Your task to perform on an android device: toggle javascript in the chrome app Image 0: 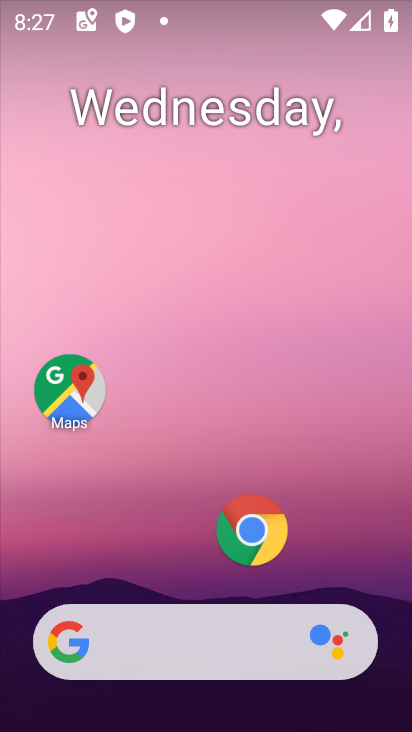
Step 0: click (251, 523)
Your task to perform on an android device: toggle javascript in the chrome app Image 1: 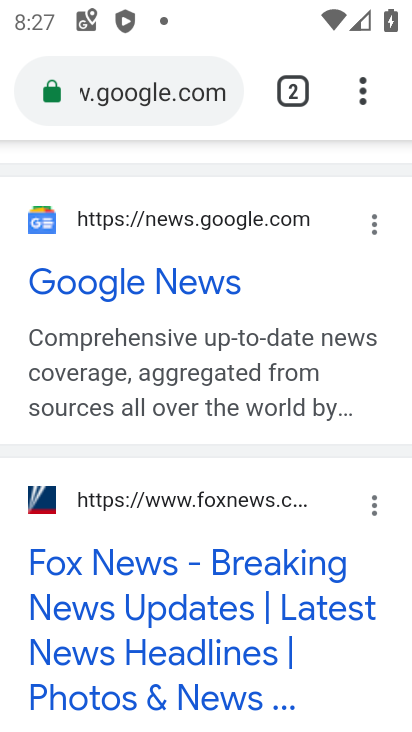
Step 1: drag from (356, 89) to (89, 547)
Your task to perform on an android device: toggle javascript in the chrome app Image 2: 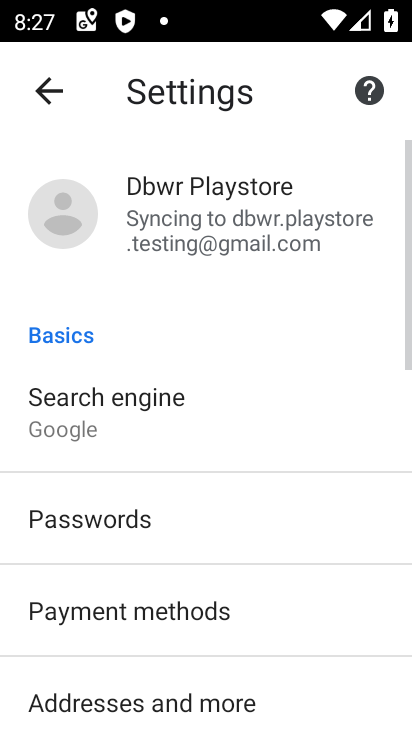
Step 2: drag from (148, 626) to (234, 210)
Your task to perform on an android device: toggle javascript in the chrome app Image 3: 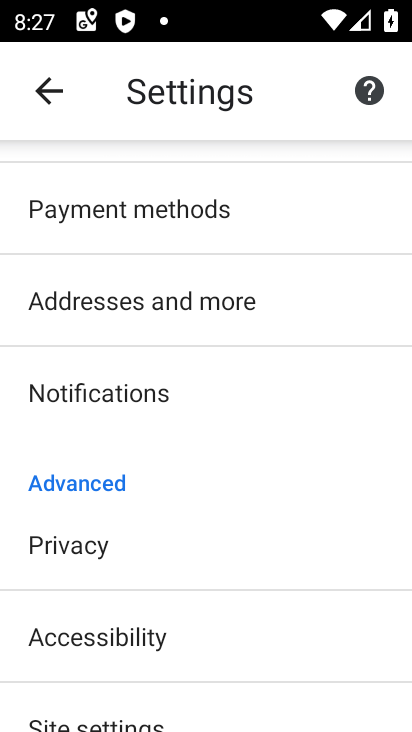
Step 3: drag from (168, 679) to (244, 326)
Your task to perform on an android device: toggle javascript in the chrome app Image 4: 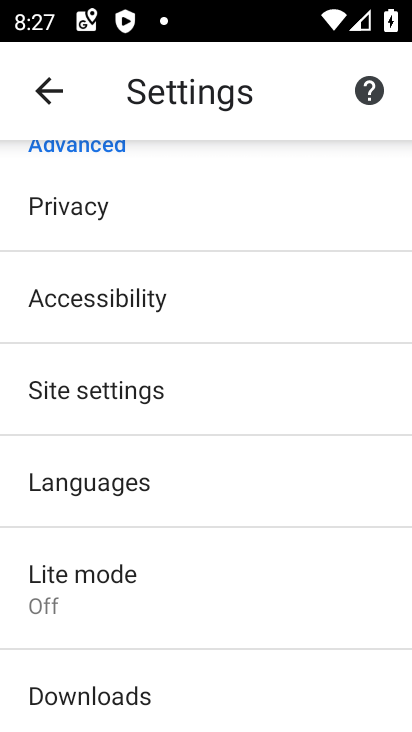
Step 4: click (99, 387)
Your task to perform on an android device: toggle javascript in the chrome app Image 5: 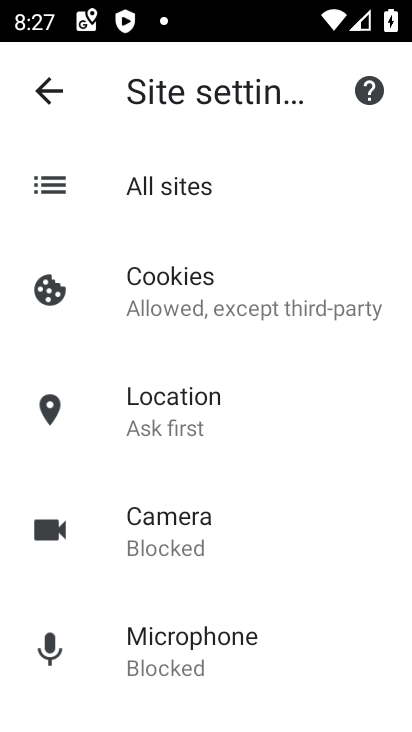
Step 5: drag from (198, 664) to (241, 311)
Your task to perform on an android device: toggle javascript in the chrome app Image 6: 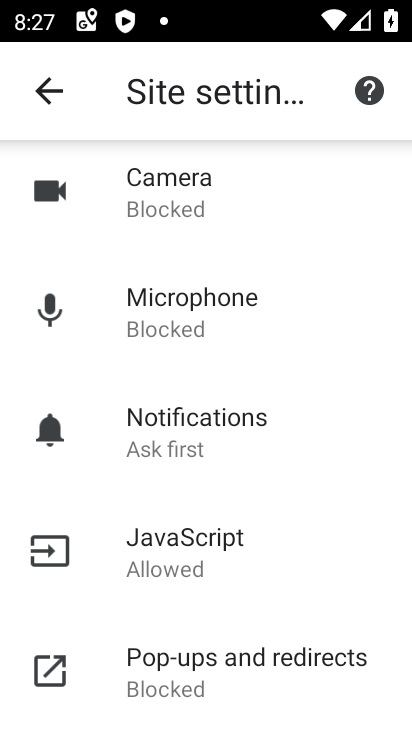
Step 6: click (200, 562)
Your task to perform on an android device: toggle javascript in the chrome app Image 7: 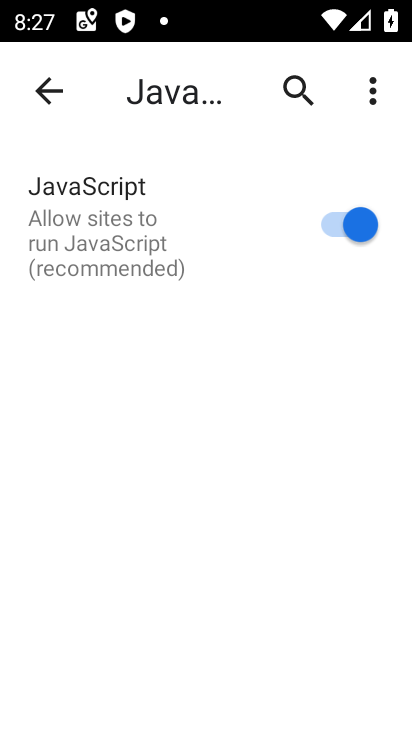
Step 7: click (347, 225)
Your task to perform on an android device: toggle javascript in the chrome app Image 8: 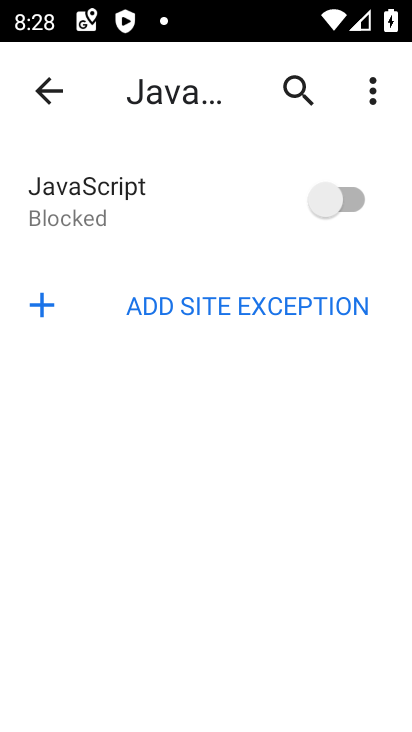
Step 8: click (343, 188)
Your task to perform on an android device: toggle javascript in the chrome app Image 9: 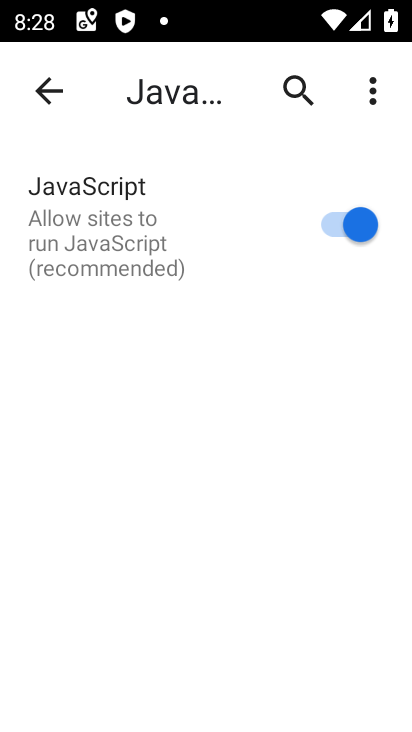
Step 9: task complete